Your task to perform on an android device: turn notification dots on Image 0: 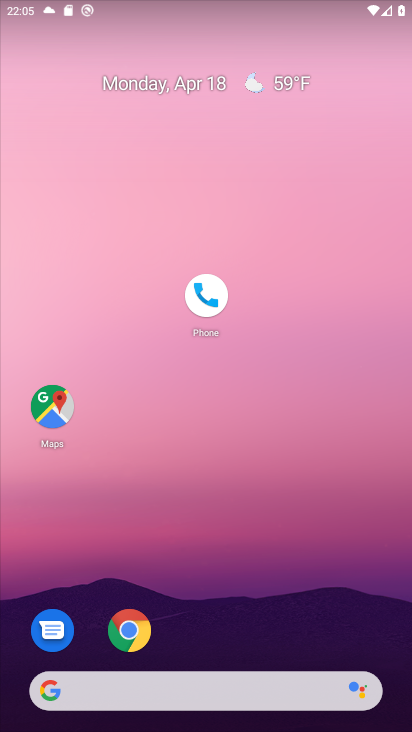
Step 0: drag from (318, 467) to (324, 78)
Your task to perform on an android device: turn notification dots on Image 1: 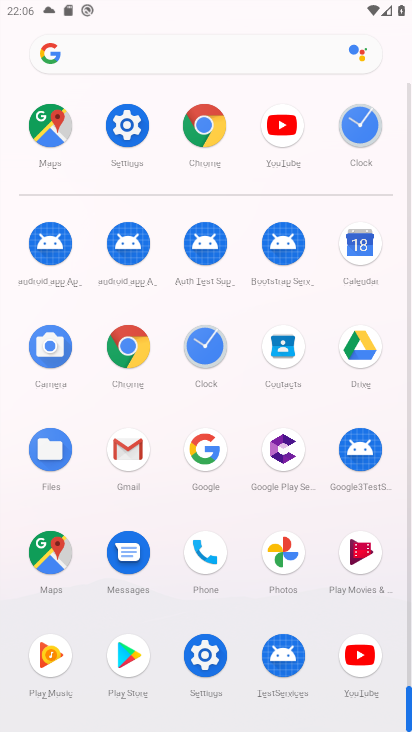
Step 1: click (120, 122)
Your task to perform on an android device: turn notification dots on Image 2: 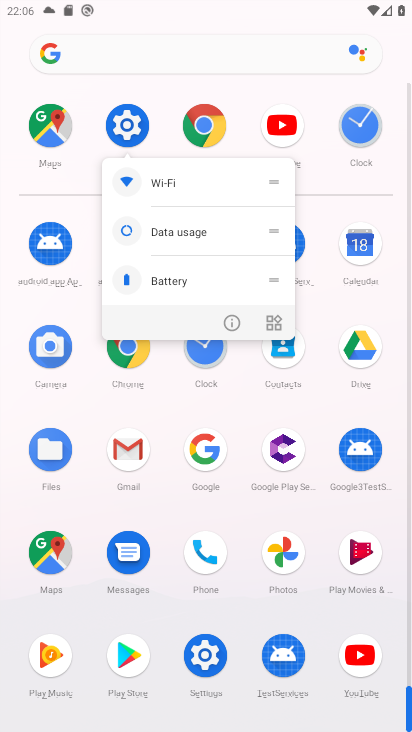
Step 2: click (199, 654)
Your task to perform on an android device: turn notification dots on Image 3: 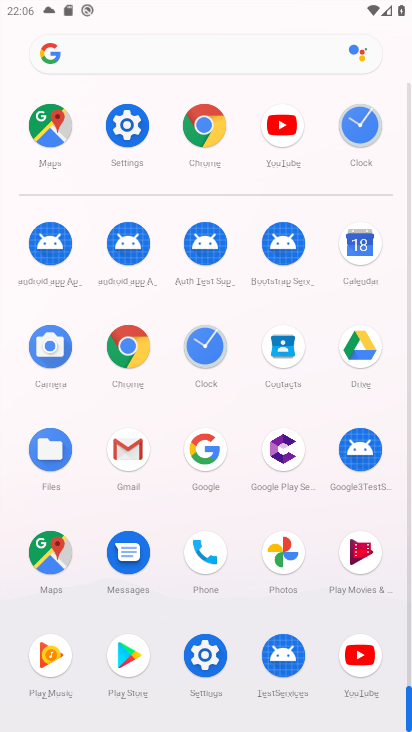
Step 3: click (199, 651)
Your task to perform on an android device: turn notification dots on Image 4: 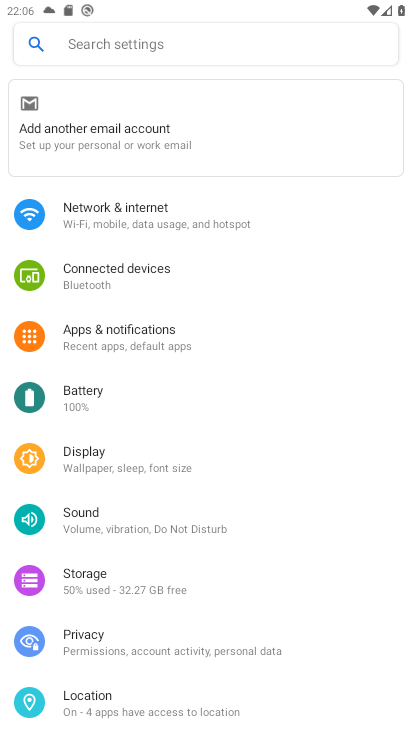
Step 4: click (138, 322)
Your task to perform on an android device: turn notification dots on Image 5: 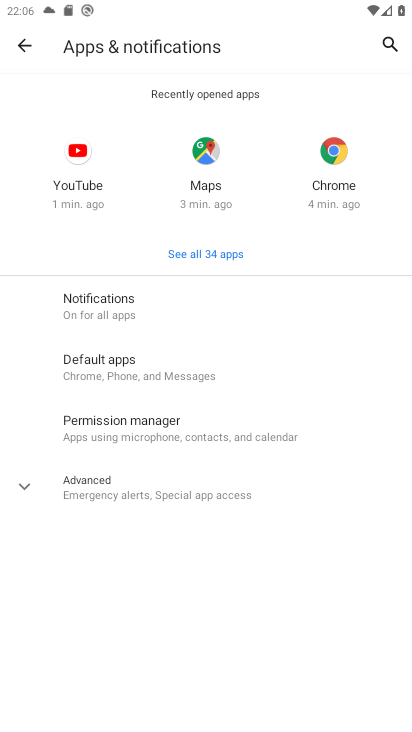
Step 5: click (122, 299)
Your task to perform on an android device: turn notification dots on Image 6: 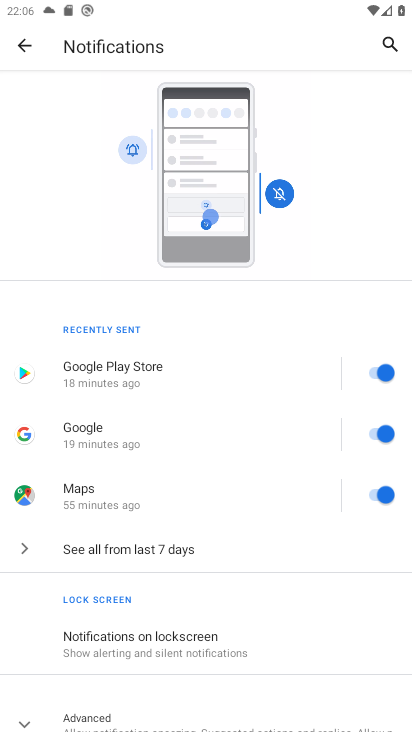
Step 6: drag from (230, 672) to (198, 295)
Your task to perform on an android device: turn notification dots on Image 7: 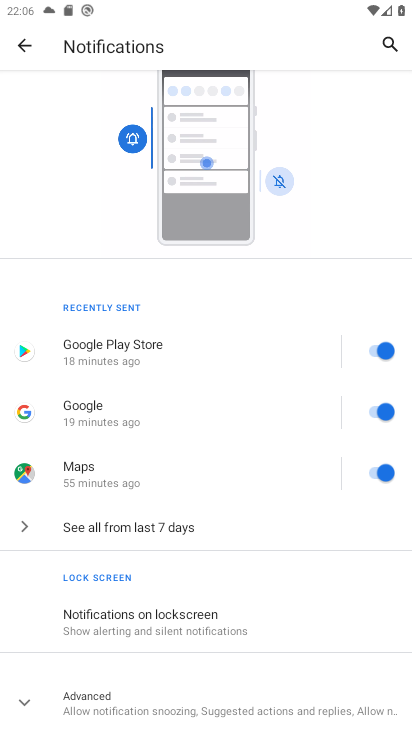
Step 7: click (102, 690)
Your task to perform on an android device: turn notification dots on Image 8: 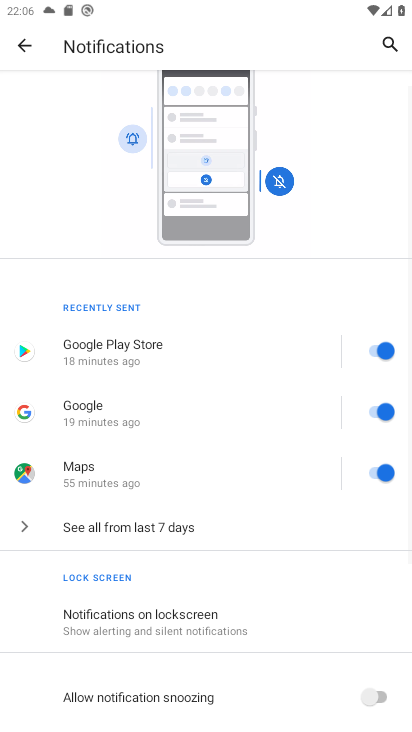
Step 8: drag from (226, 663) to (219, 270)
Your task to perform on an android device: turn notification dots on Image 9: 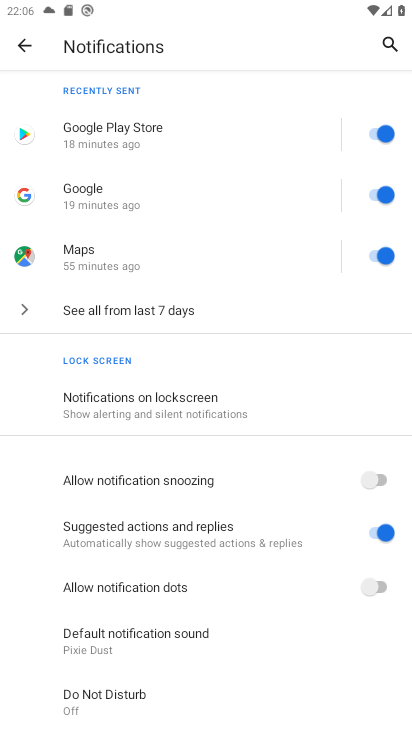
Step 9: click (366, 594)
Your task to perform on an android device: turn notification dots on Image 10: 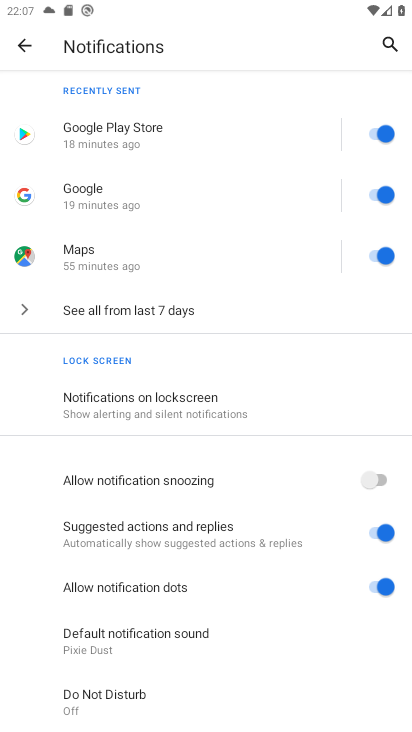
Step 10: task complete